Your task to perform on an android device: Open the phone app and click the voicemail tab. Image 0: 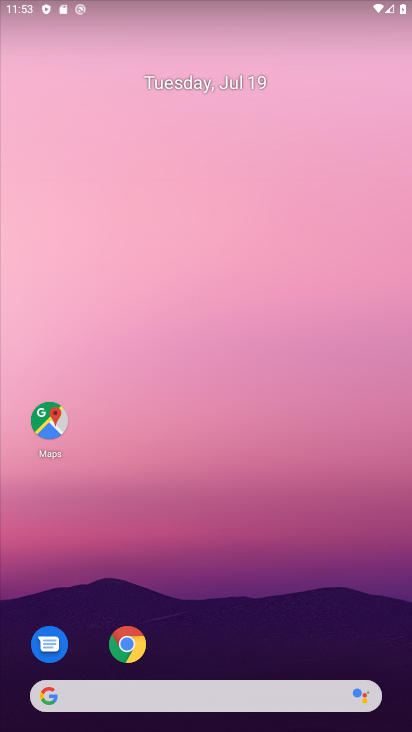
Step 0: task complete